Your task to perform on an android device: Open the calendar app, open the side menu, and click the "Day" option Image 0: 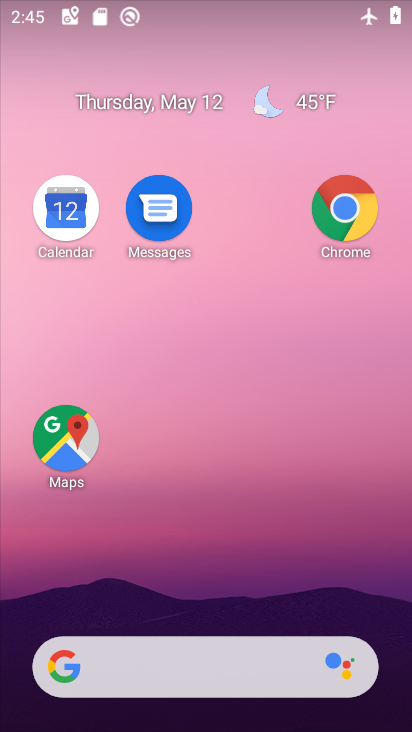
Step 0: drag from (222, 565) to (241, 333)
Your task to perform on an android device: Open the calendar app, open the side menu, and click the "Day" option Image 1: 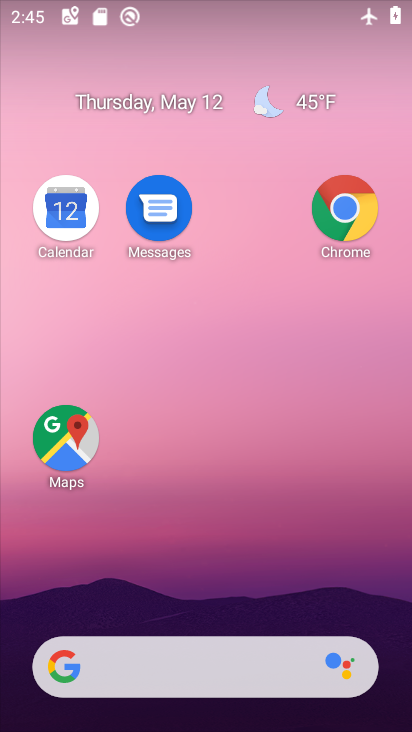
Step 1: drag from (221, 602) to (247, 276)
Your task to perform on an android device: Open the calendar app, open the side menu, and click the "Day" option Image 2: 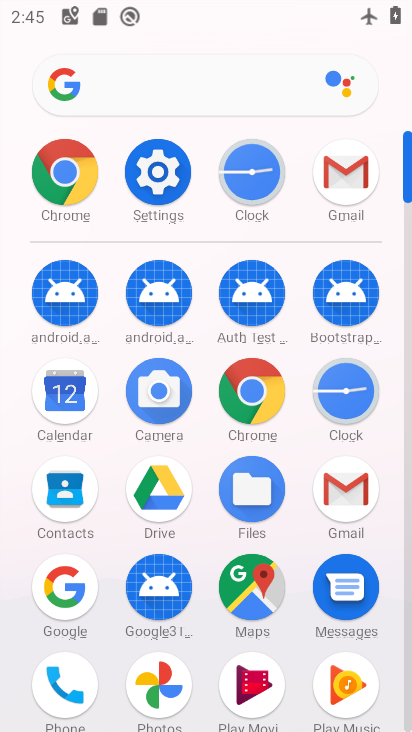
Step 2: click (53, 400)
Your task to perform on an android device: Open the calendar app, open the side menu, and click the "Day" option Image 3: 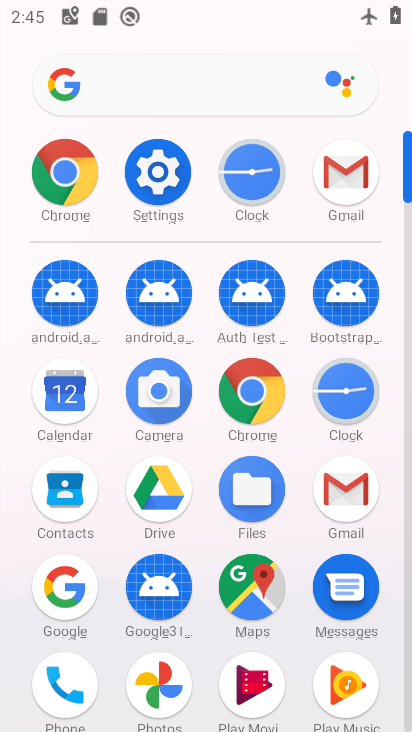
Step 3: click (53, 400)
Your task to perform on an android device: Open the calendar app, open the side menu, and click the "Day" option Image 4: 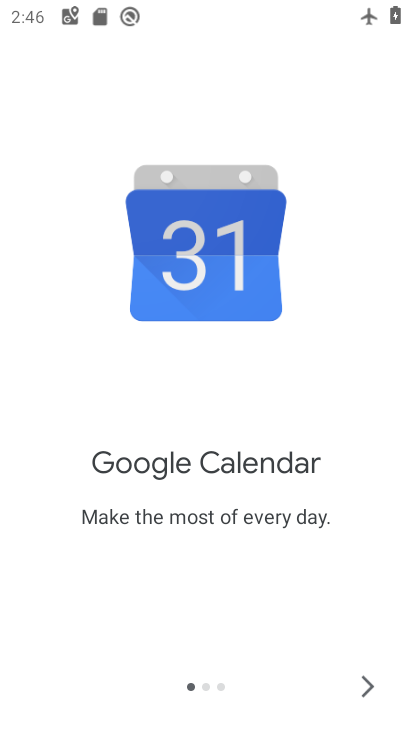
Step 4: click (369, 681)
Your task to perform on an android device: Open the calendar app, open the side menu, and click the "Day" option Image 5: 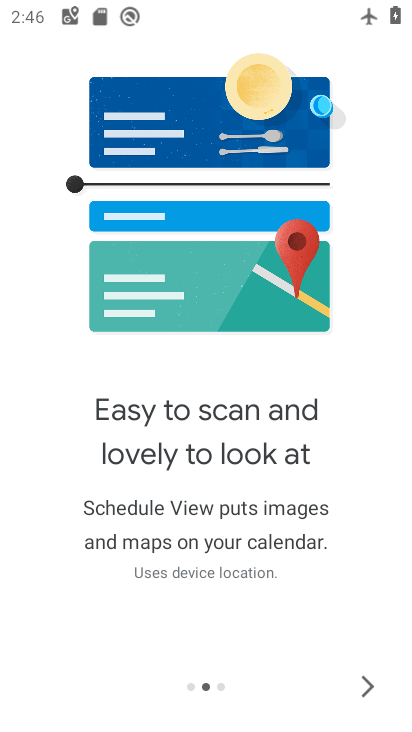
Step 5: click (361, 676)
Your task to perform on an android device: Open the calendar app, open the side menu, and click the "Day" option Image 6: 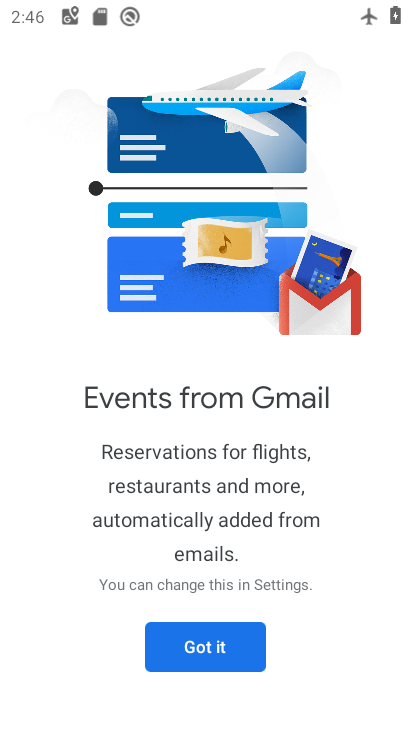
Step 6: click (208, 628)
Your task to perform on an android device: Open the calendar app, open the side menu, and click the "Day" option Image 7: 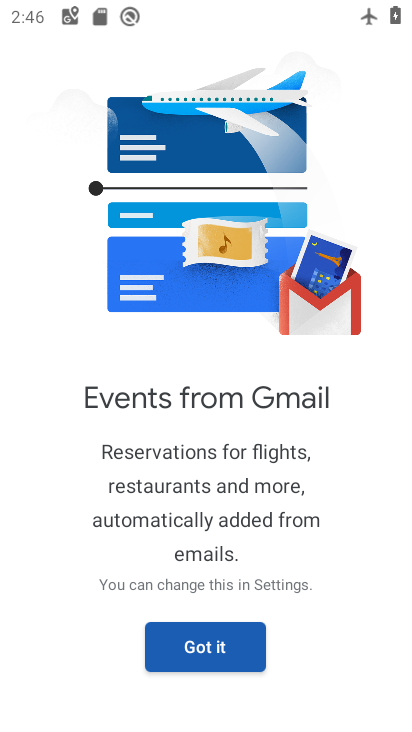
Step 7: click (209, 632)
Your task to perform on an android device: Open the calendar app, open the side menu, and click the "Day" option Image 8: 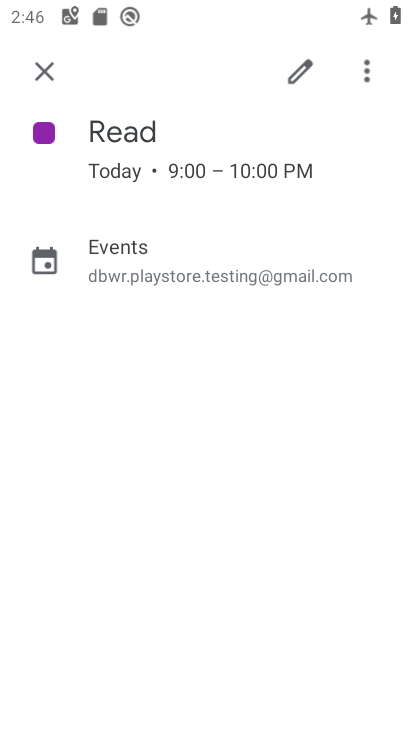
Step 8: click (53, 64)
Your task to perform on an android device: Open the calendar app, open the side menu, and click the "Day" option Image 9: 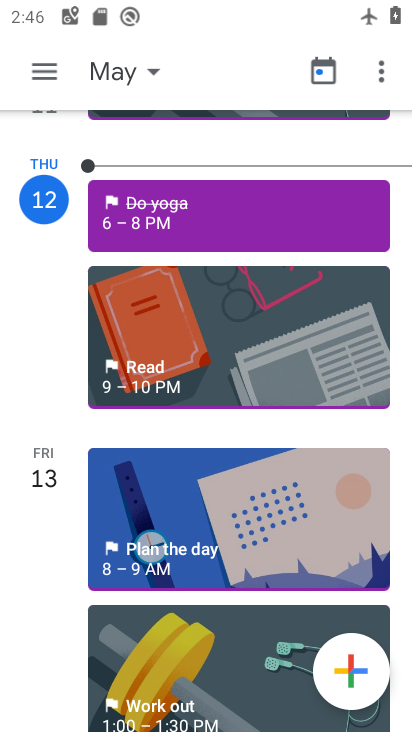
Step 9: click (53, 64)
Your task to perform on an android device: Open the calendar app, open the side menu, and click the "Day" option Image 10: 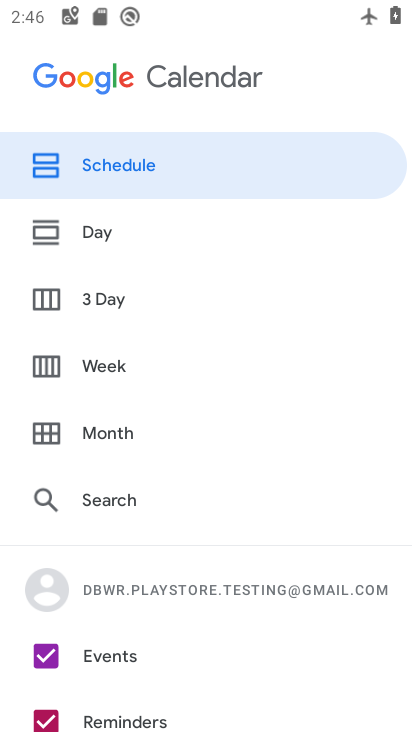
Step 10: click (109, 220)
Your task to perform on an android device: Open the calendar app, open the side menu, and click the "Day" option Image 11: 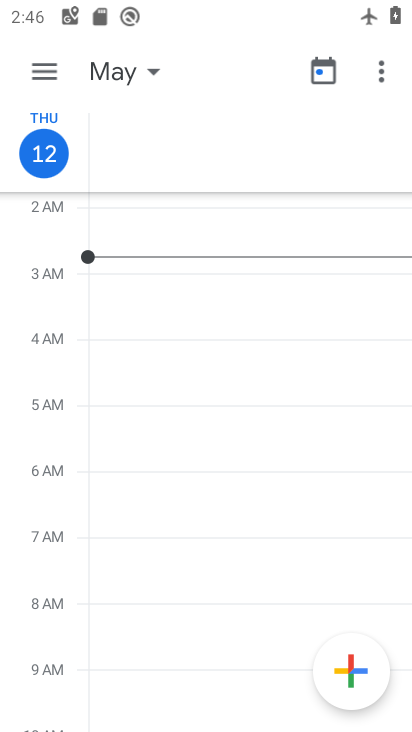
Step 11: task complete